Your task to perform on an android device: turn off sleep mode Image 0: 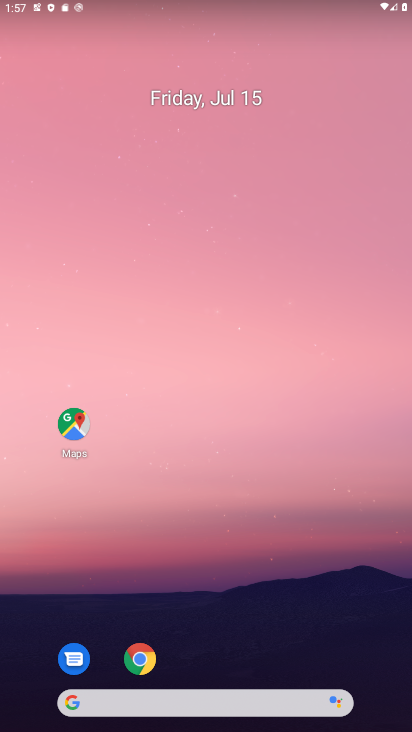
Step 0: drag from (213, 645) to (226, 298)
Your task to perform on an android device: turn off sleep mode Image 1: 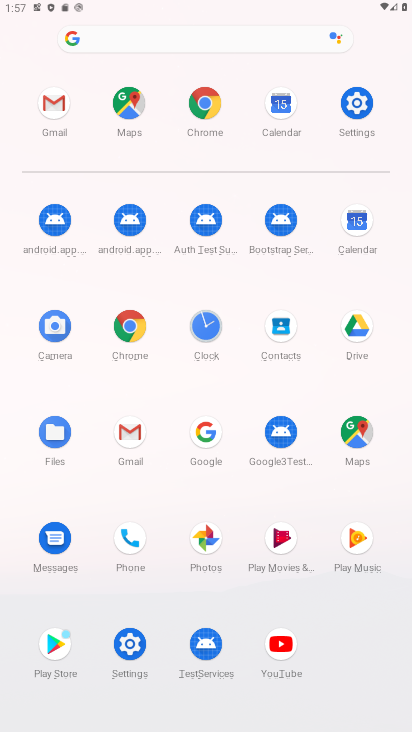
Step 1: click (358, 100)
Your task to perform on an android device: turn off sleep mode Image 2: 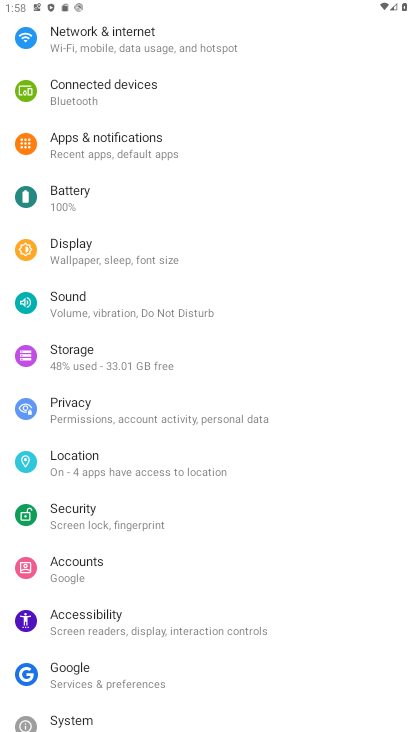
Step 2: task complete